Your task to perform on an android device: Open accessibility settings Image 0: 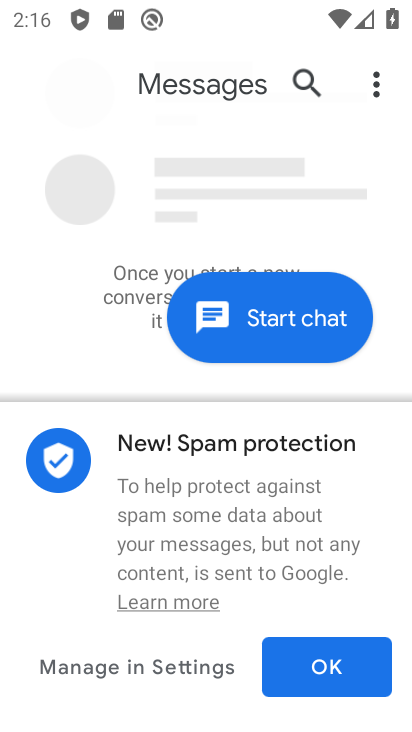
Step 0: press home button
Your task to perform on an android device: Open accessibility settings Image 1: 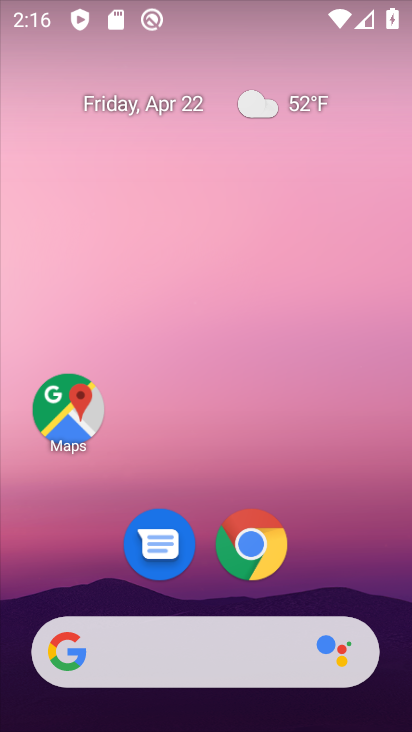
Step 1: drag from (204, 584) to (231, 115)
Your task to perform on an android device: Open accessibility settings Image 2: 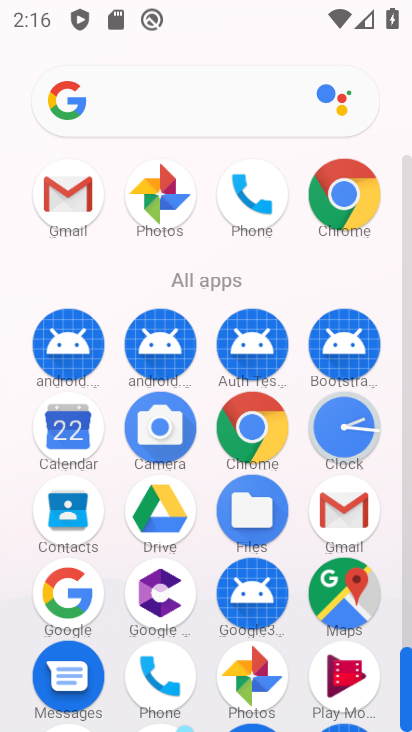
Step 2: click (251, 211)
Your task to perform on an android device: Open accessibility settings Image 3: 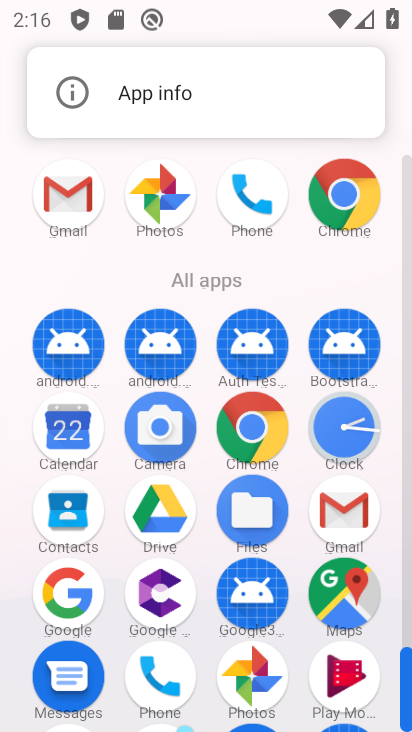
Step 3: drag from (200, 642) to (190, 230)
Your task to perform on an android device: Open accessibility settings Image 4: 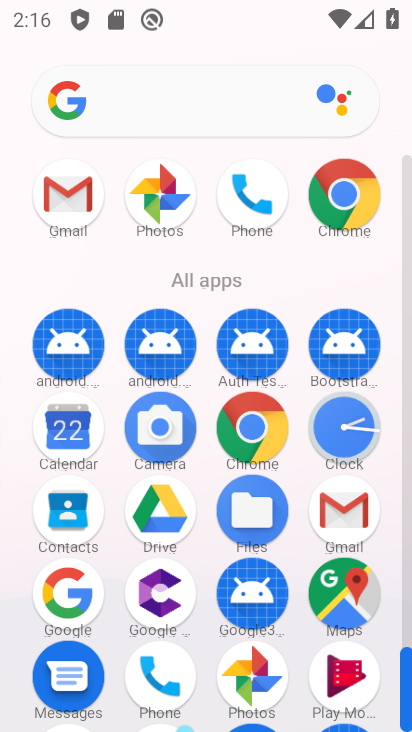
Step 4: drag from (214, 624) to (164, 291)
Your task to perform on an android device: Open accessibility settings Image 5: 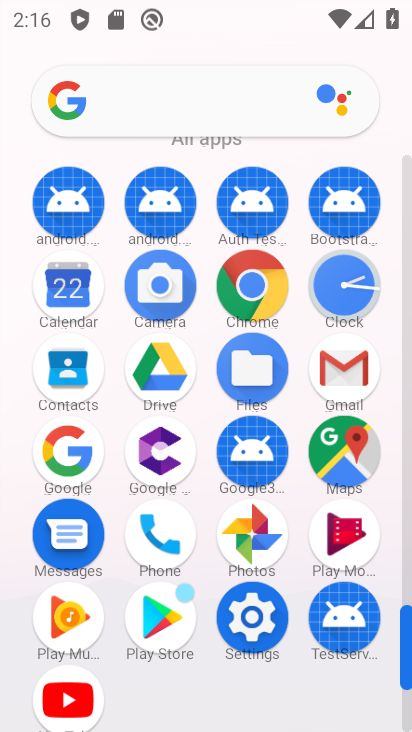
Step 5: click (252, 617)
Your task to perform on an android device: Open accessibility settings Image 6: 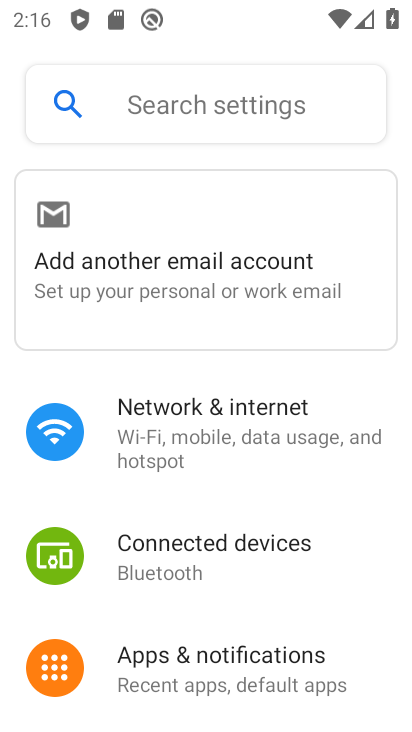
Step 6: drag from (252, 617) to (264, 250)
Your task to perform on an android device: Open accessibility settings Image 7: 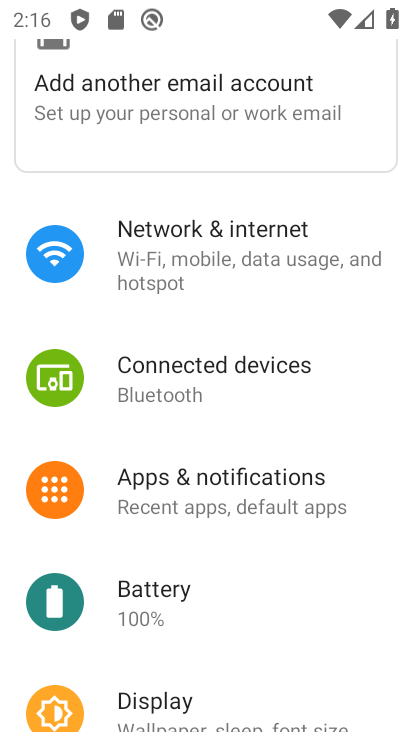
Step 7: drag from (135, 638) to (187, 142)
Your task to perform on an android device: Open accessibility settings Image 8: 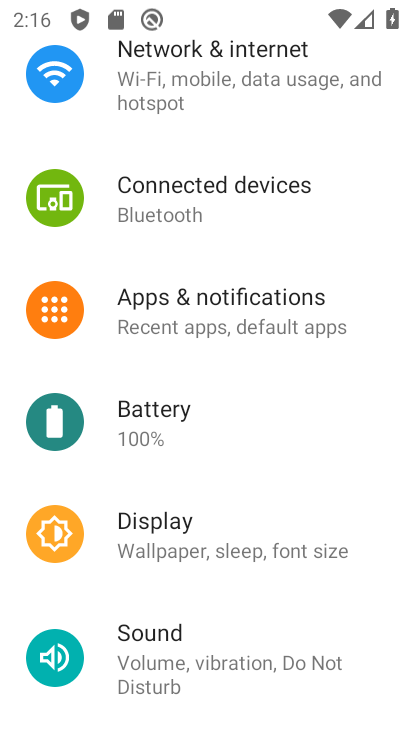
Step 8: drag from (56, 623) to (126, 202)
Your task to perform on an android device: Open accessibility settings Image 9: 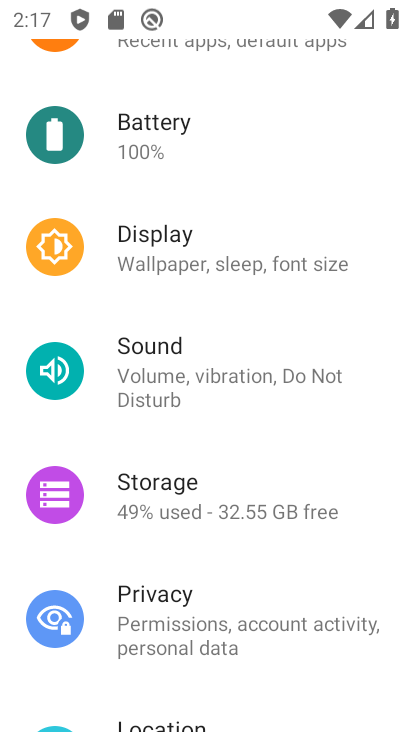
Step 9: drag from (82, 659) to (170, 138)
Your task to perform on an android device: Open accessibility settings Image 10: 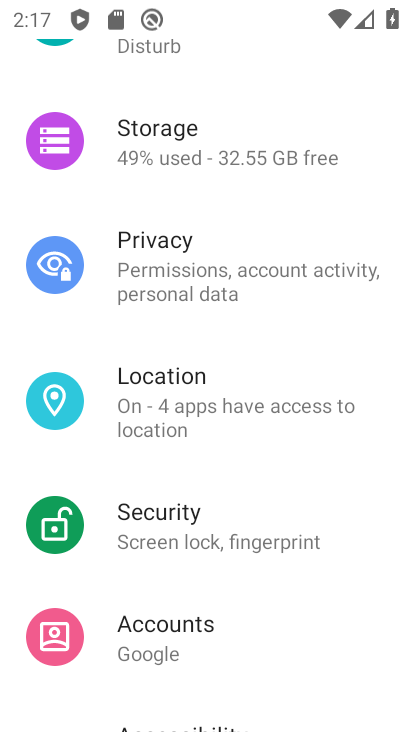
Step 10: drag from (99, 606) to (189, 211)
Your task to perform on an android device: Open accessibility settings Image 11: 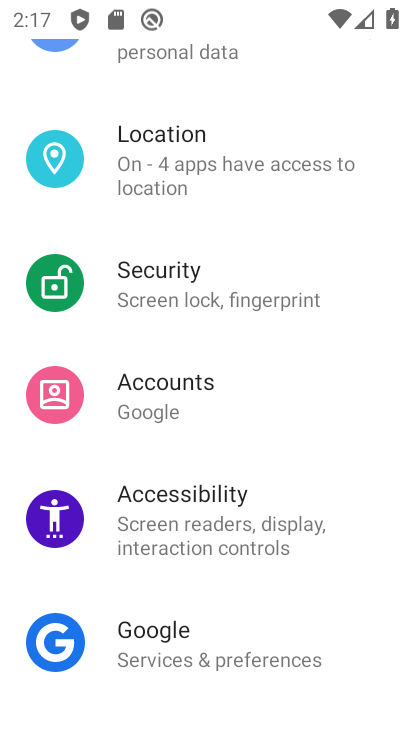
Step 11: click (172, 536)
Your task to perform on an android device: Open accessibility settings Image 12: 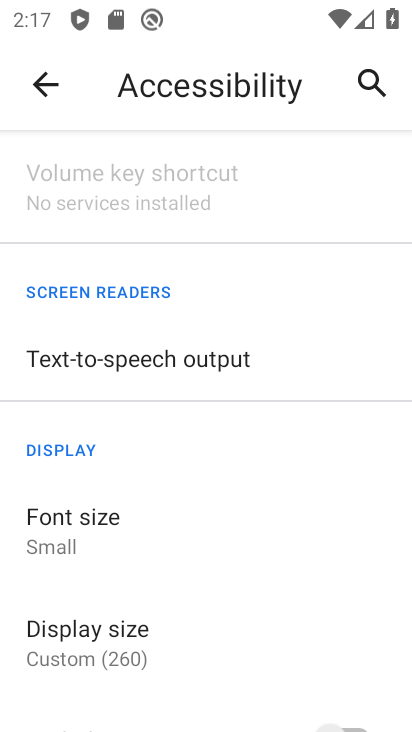
Step 12: task complete